Your task to perform on an android device: open app "Expedia: Hotels, Flights & Car" (install if not already installed) Image 0: 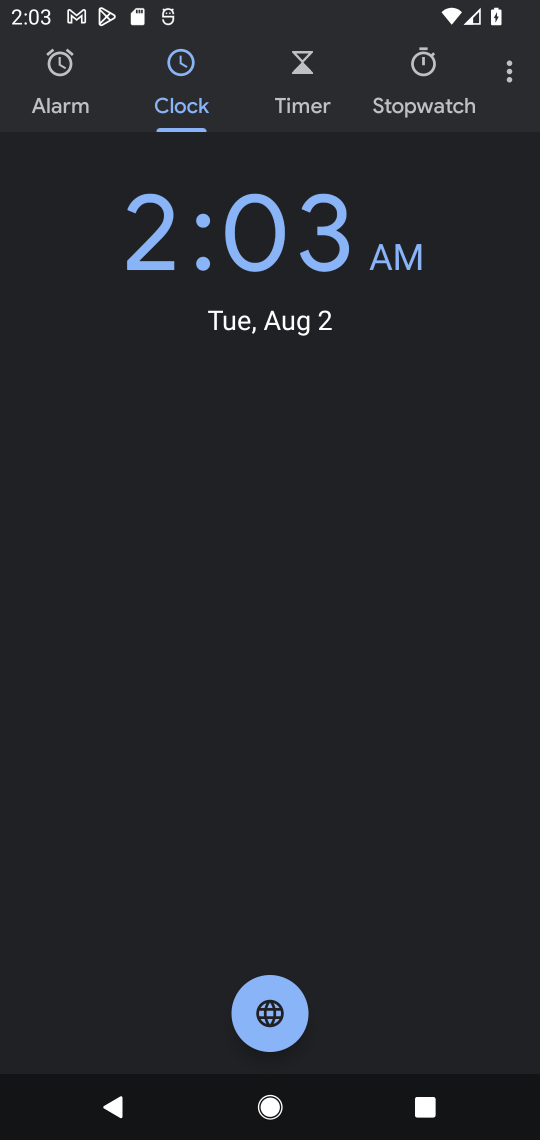
Step 0: press home button
Your task to perform on an android device: open app "Expedia: Hotels, Flights & Car" (install if not already installed) Image 1: 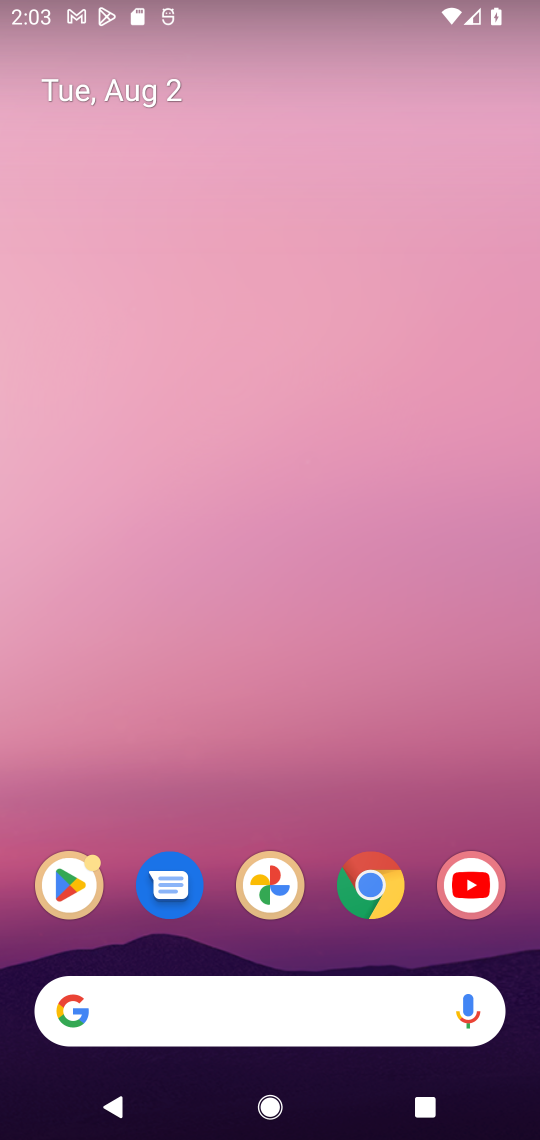
Step 1: click (74, 869)
Your task to perform on an android device: open app "Expedia: Hotels, Flights & Car" (install if not already installed) Image 2: 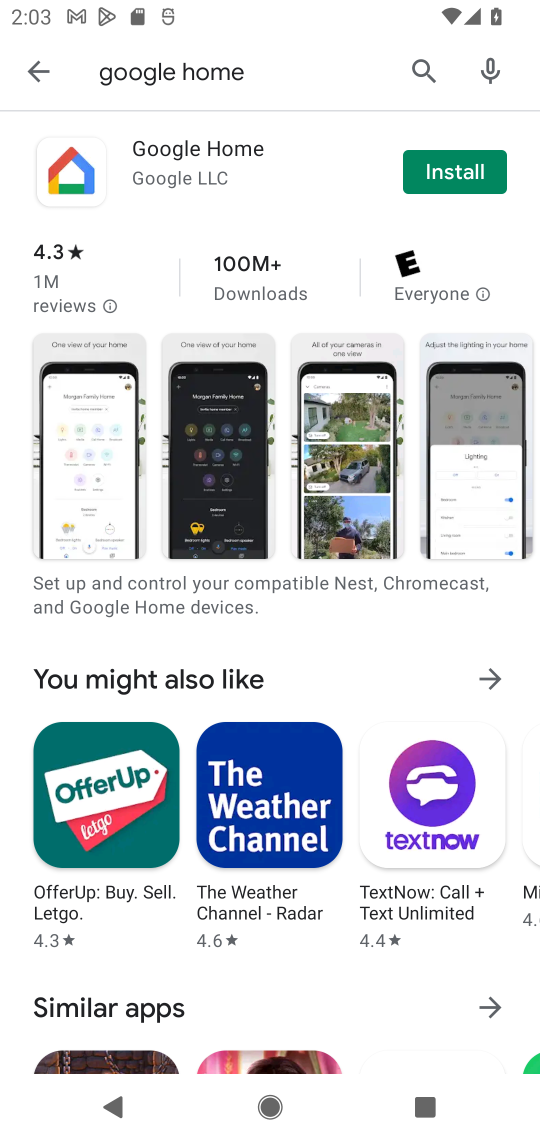
Step 2: click (422, 77)
Your task to perform on an android device: open app "Expedia: Hotels, Flights & Car" (install if not already installed) Image 3: 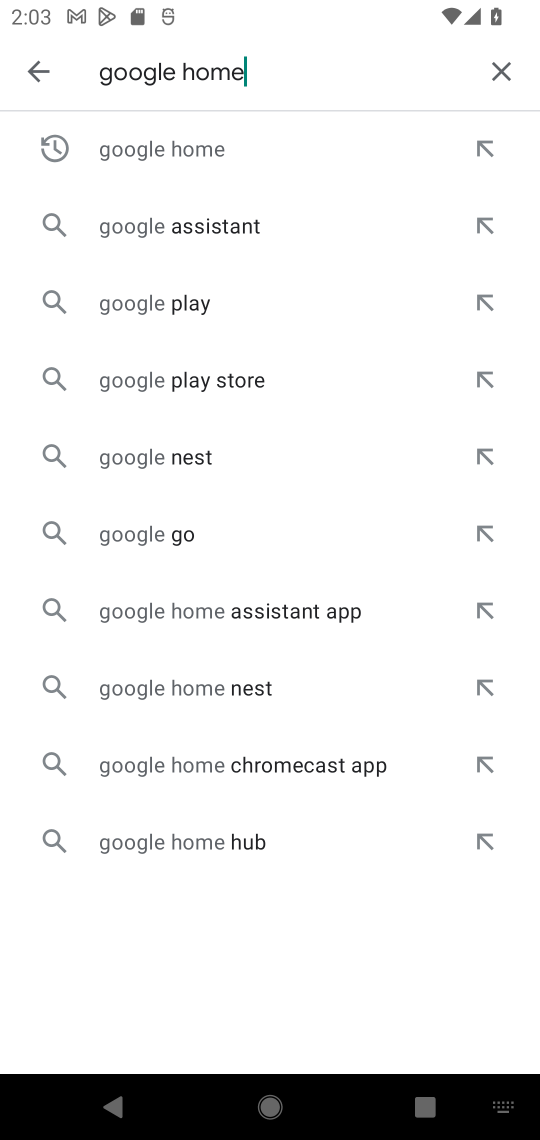
Step 3: click (494, 77)
Your task to perform on an android device: open app "Expedia: Hotels, Flights & Car" (install if not already installed) Image 4: 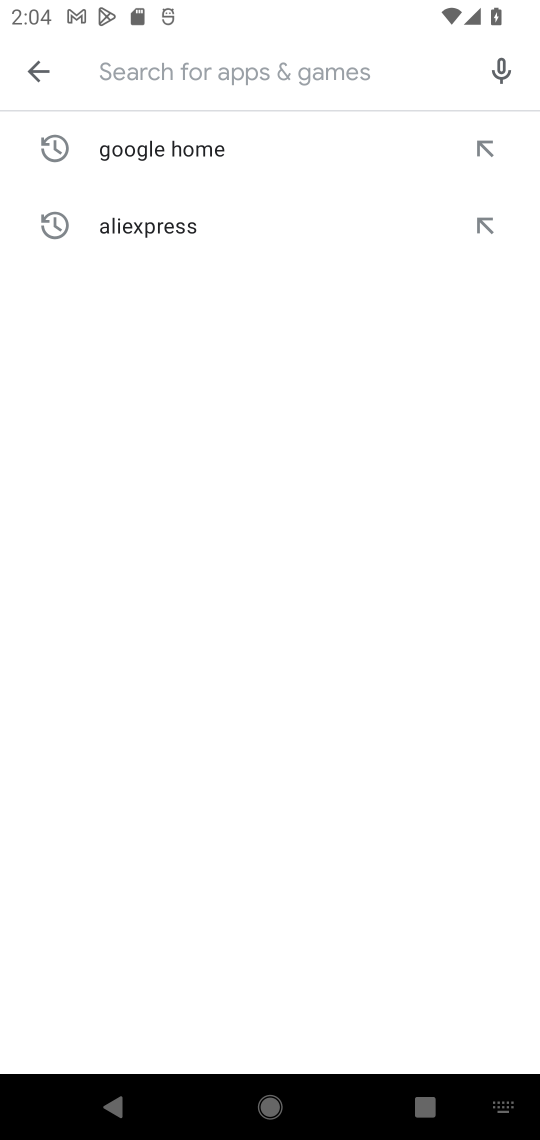
Step 4: type "expedia"
Your task to perform on an android device: open app "Expedia: Hotels, Flights & Car" (install if not already installed) Image 5: 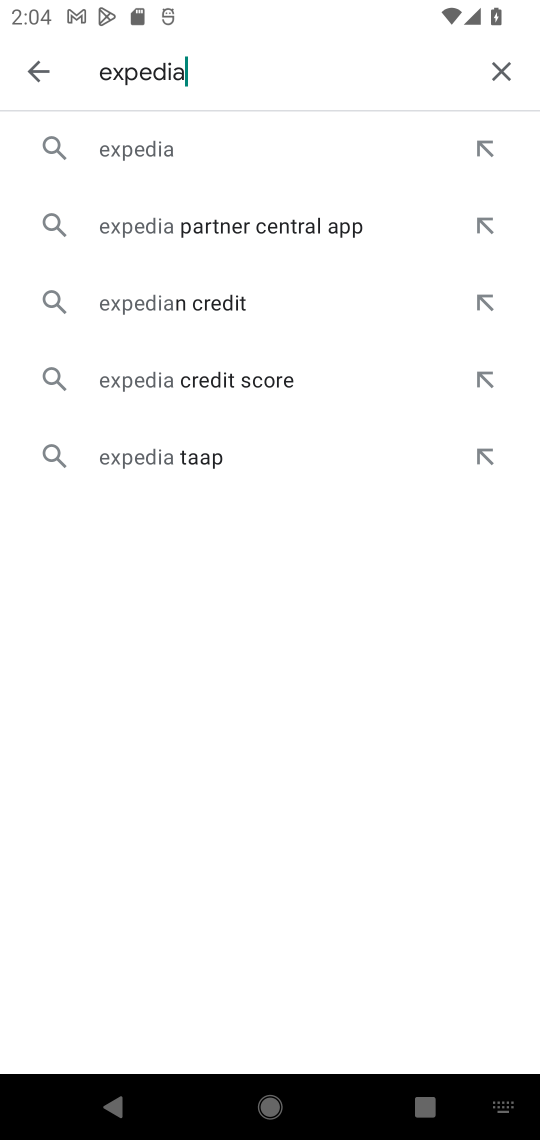
Step 5: click (189, 149)
Your task to perform on an android device: open app "Expedia: Hotels, Flights & Car" (install if not already installed) Image 6: 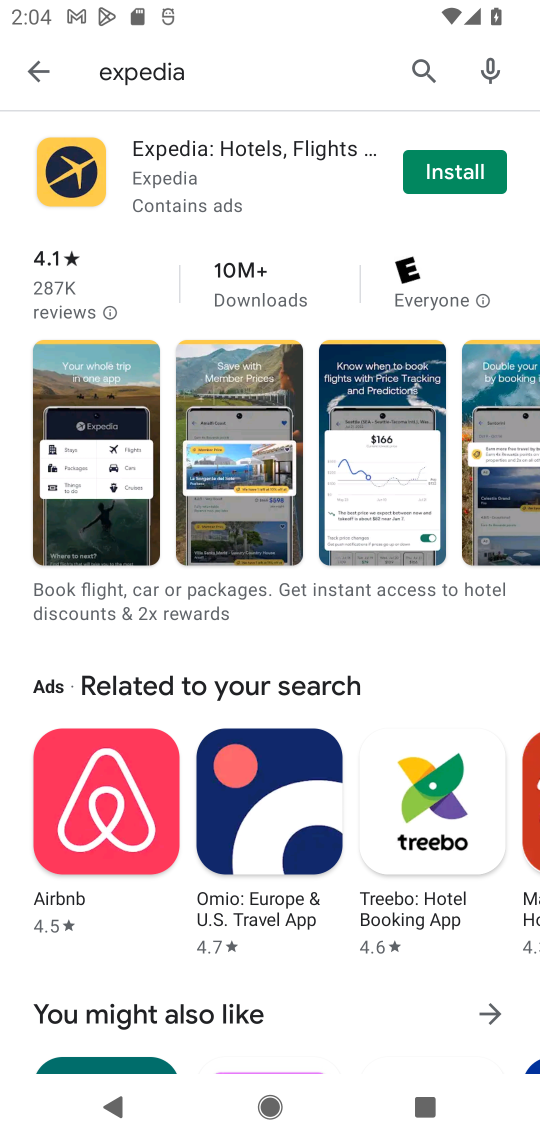
Step 6: click (441, 165)
Your task to perform on an android device: open app "Expedia: Hotels, Flights & Car" (install if not already installed) Image 7: 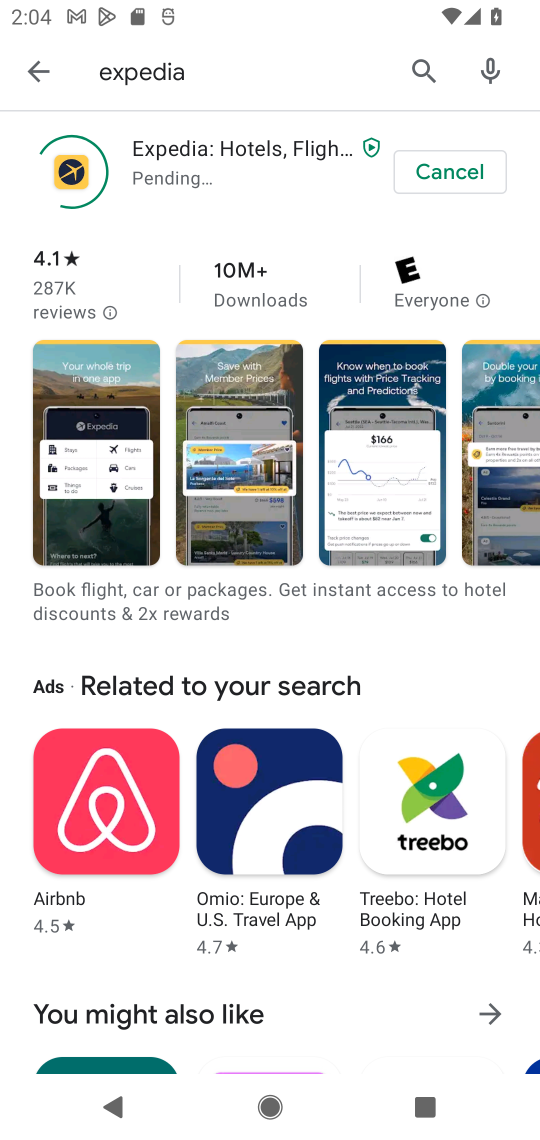
Step 7: task complete